Your task to perform on an android device: change the clock display to show seconds Image 0: 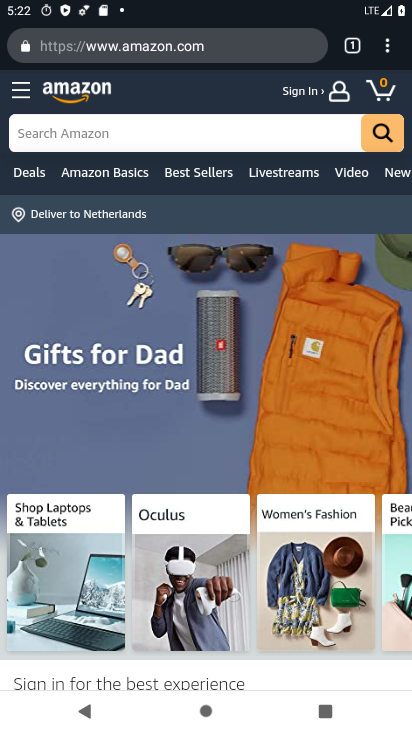
Step 0: press home button
Your task to perform on an android device: change the clock display to show seconds Image 1: 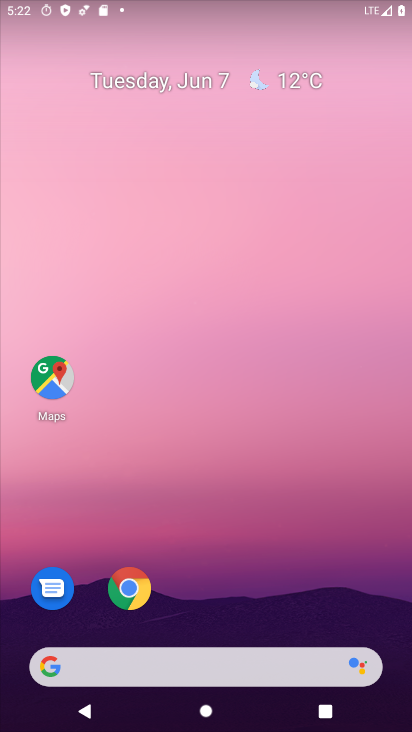
Step 1: drag from (190, 617) to (193, 26)
Your task to perform on an android device: change the clock display to show seconds Image 2: 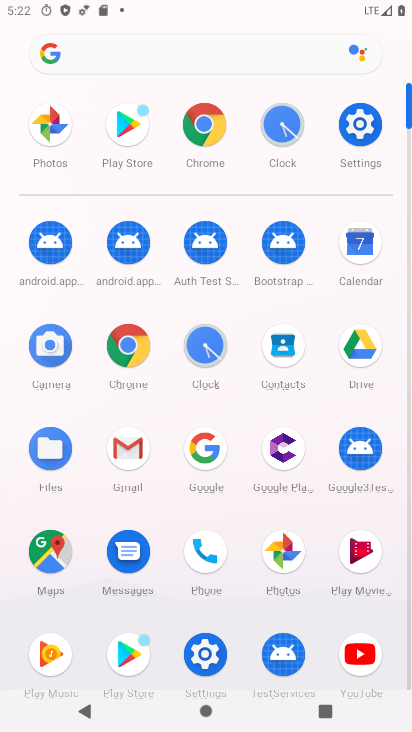
Step 2: click (207, 337)
Your task to perform on an android device: change the clock display to show seconds Image 3: 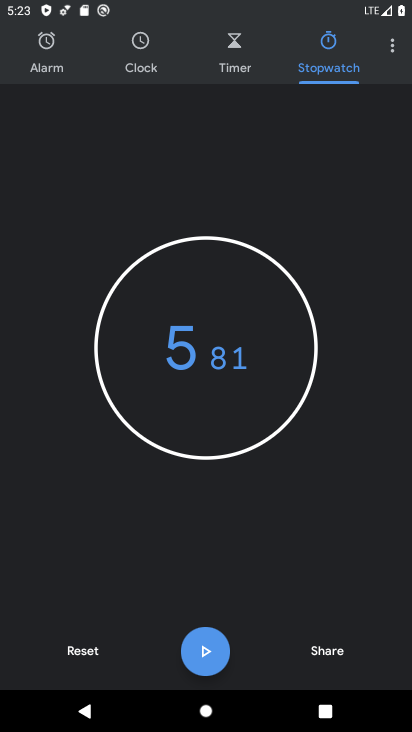
Step 3: click (391, 47)
Your task to perform on an android device: change the clock display to show seconds Image 4: 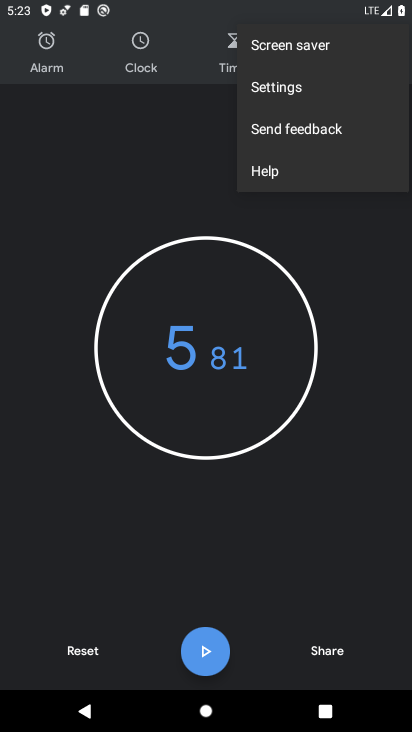
Step 4: click (296, 98)
Your task to perform on an android device: change the clock display to show seconds Image 5: 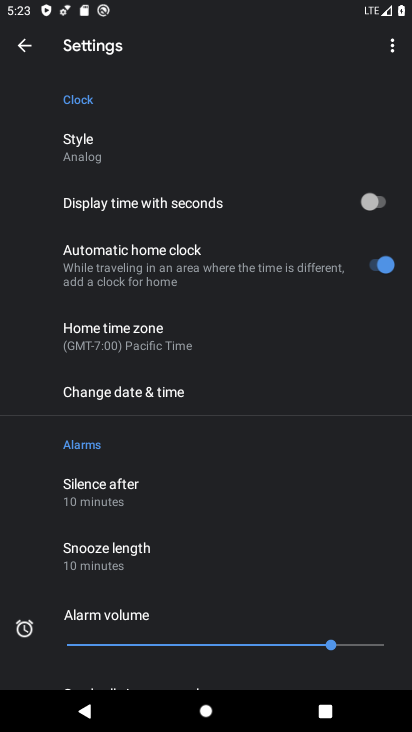
Step 5: click (383, 205)
Your task to perform on an android device: change the clock display to show seconds Image 6: 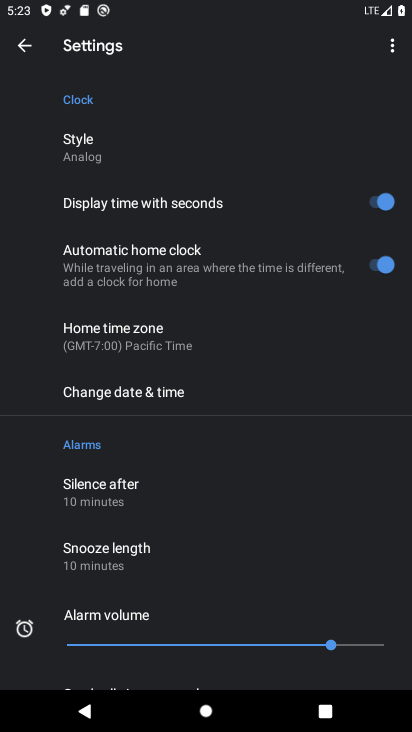
Step 6: task complete